Your task to perform on an android device: make emails show in primary in the gmail app Image 0: 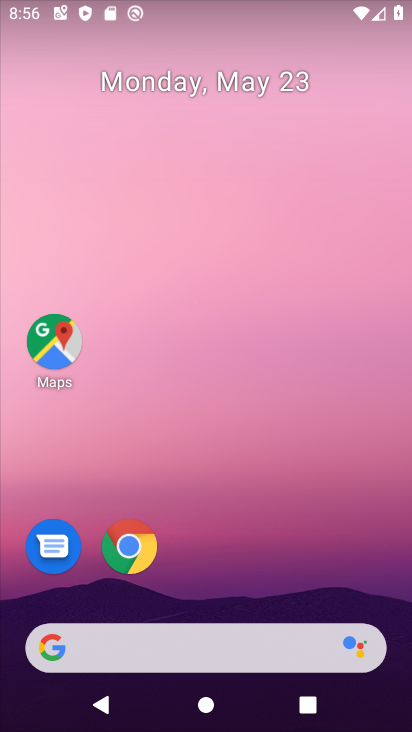
Step 0: drag from (392, 618) to (368, 26)
Your task to perform on an android device: make emails show in primary in the gmail app Image 1: 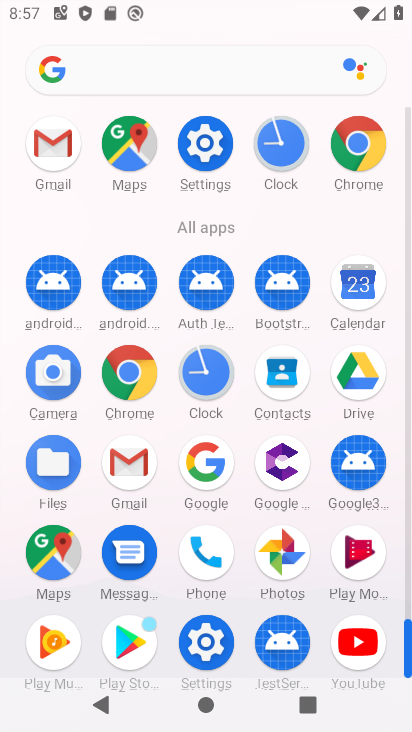
Step 1: click (127, 455)
Your task to perform on an android device: make emails show in primary in the gmail app Image 2: 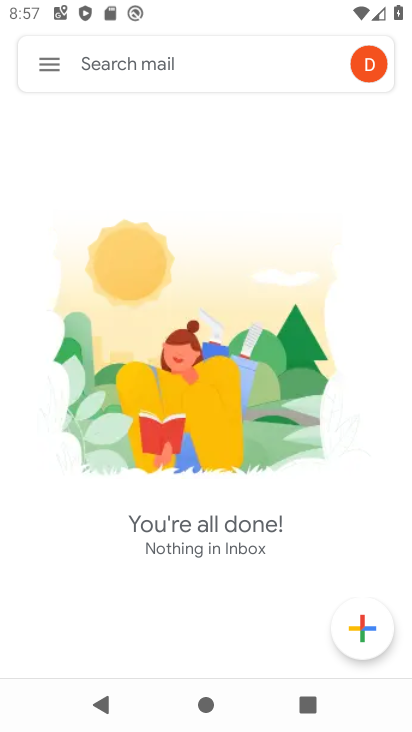
Step 2: click (50, 62)
Your task to perform on an android device: make emails show in primary in the gmail app Image 3: 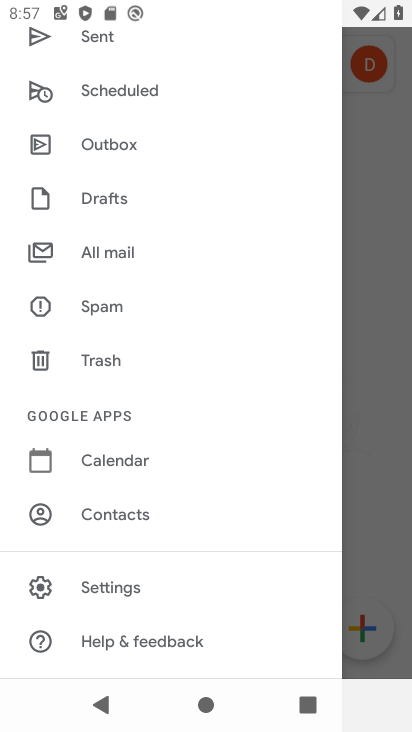
Step 3: click (112, 577)
Your task to perform on an android device: make emails show in primary in the gmail app Image 4: 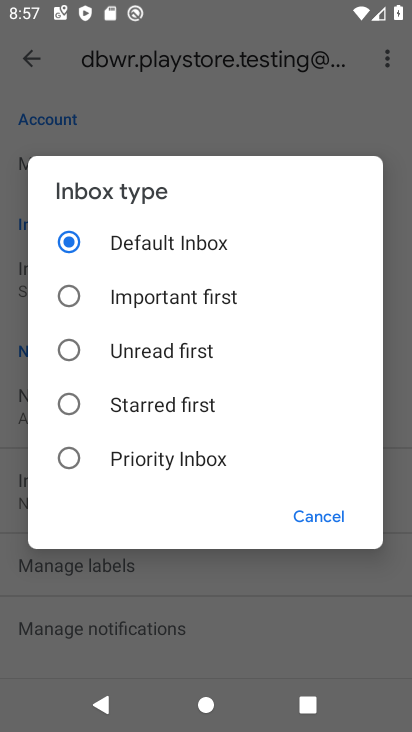
Step 4: click (312, 520)
Your task to perform on an android device: make emails show in primary in the gmail app Image 5: 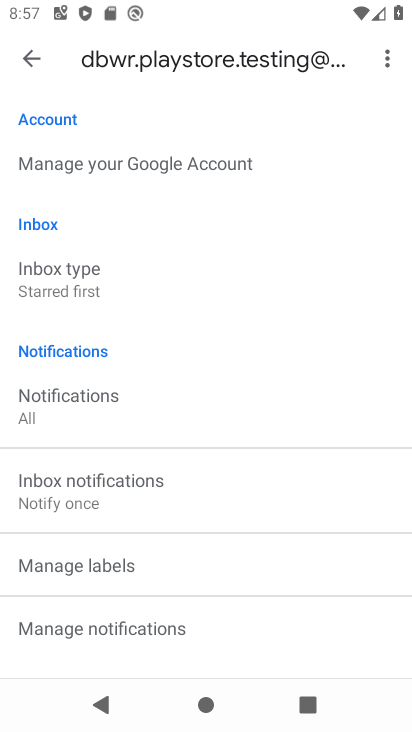
Step 5: click (52, 276)
Your task to perform on an android device: make emails show in primary in the gmail app Image 6: 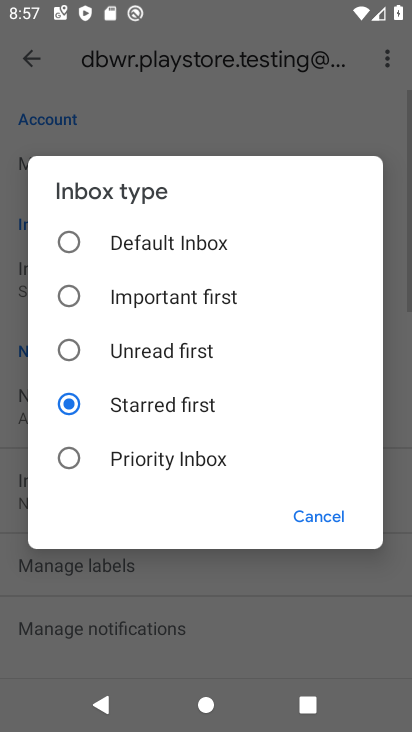
Step 6: click (72, 244)
Your task to perform on an android device: make emails show in primary in the gmail app Image 7: 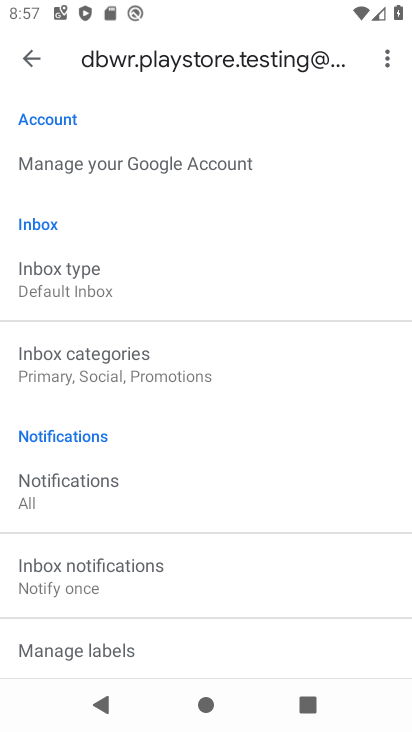
Step 7: click (85, 364)
Your task to perform on an android device: make emails show in primary in the gmail app Image 8: 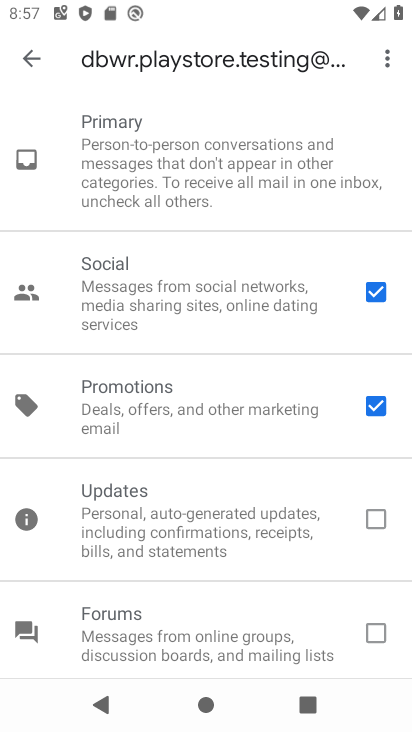
Step 8: click (402, 284)
Your task to perform on an android device: make emails show in primary in the gmail app Image 9: 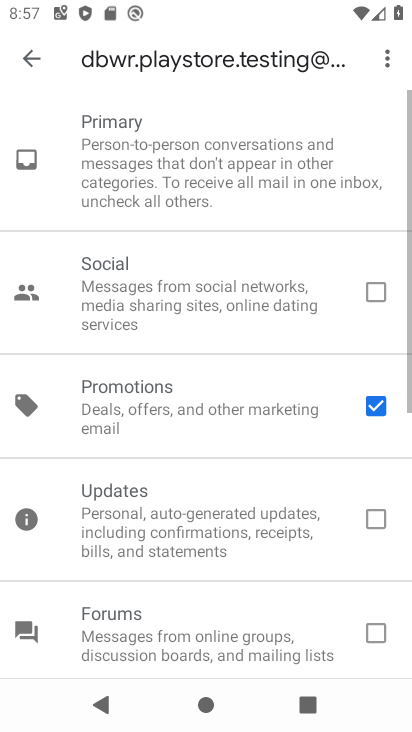
Step 9: click (377, 411)
Your task to perform on an android device: make emails show in primary in the gmail app Image 10: 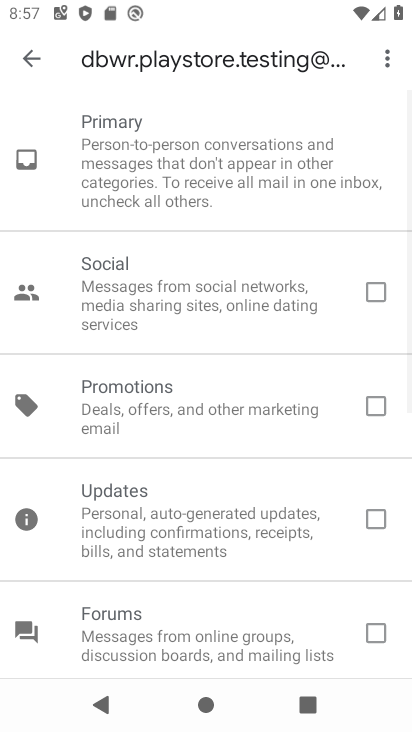
Step 10: task complete